Your task to perform on an android device: turn on priority inbox in the gmail app Image 0: 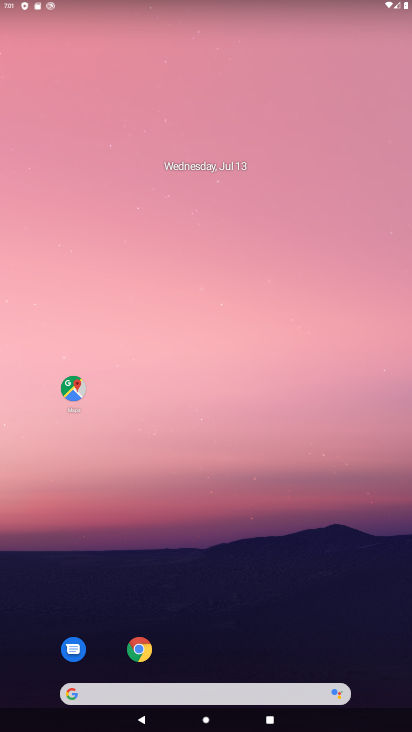
Step 0: drag from (189, 692) to (217, 189)
Your task to perform on an android device: turn on priority inbox in the gmail app Image 1: 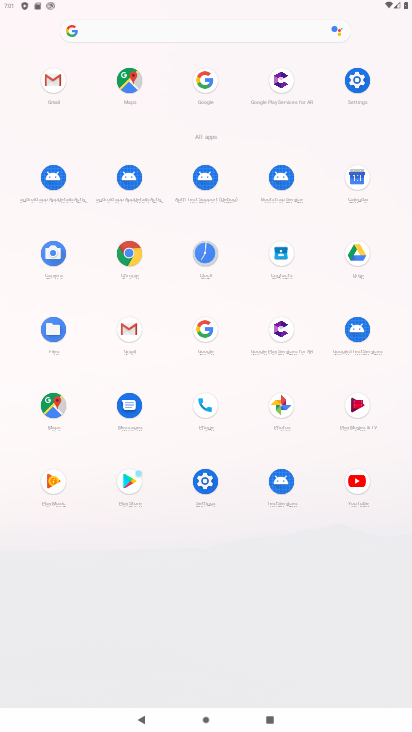
Step 1: click (53, 80)
Your task to perform on an android device: turn on priority inbox in the gmail app Image 2: 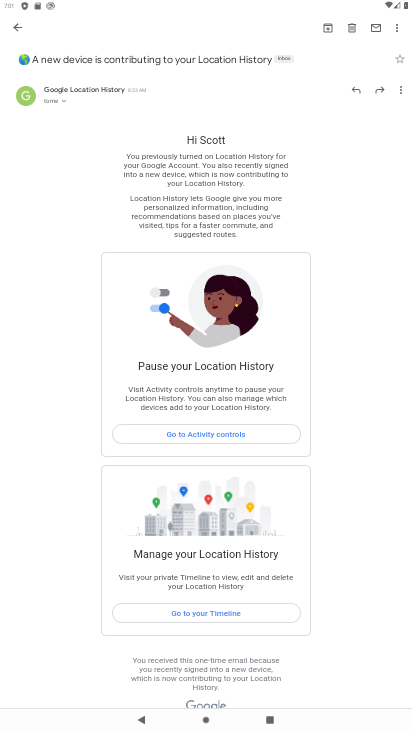
Step 2: press back button
Your task to perform on an android device: turn on priority inbox in the gmail app Image 3: 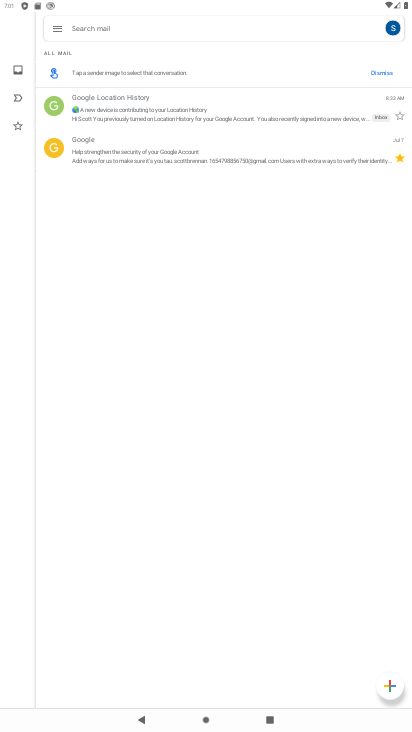
Step 3: click (57, 29)
Your task to perform on an android device: turn on priority inbox in the gmail app Image 4: 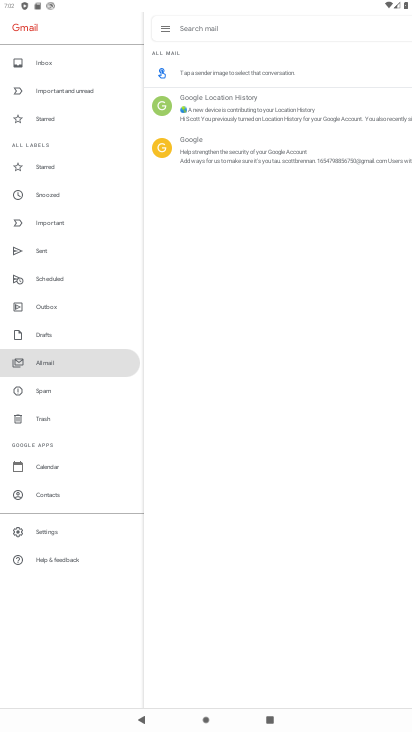
Step 4: click (54, 533)
Your task to perform on an android device: turn on priority inbox in the gmail app Image 5: 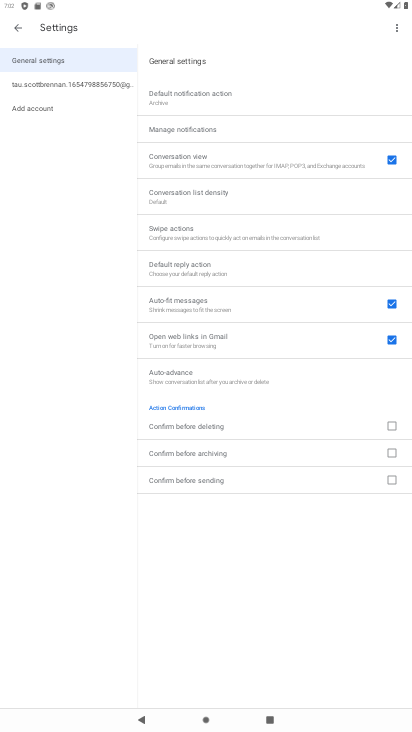
Step 5: click (84, 84)
Your task to perform on an android device: turn on priority inbox in the gmail app Image 6: 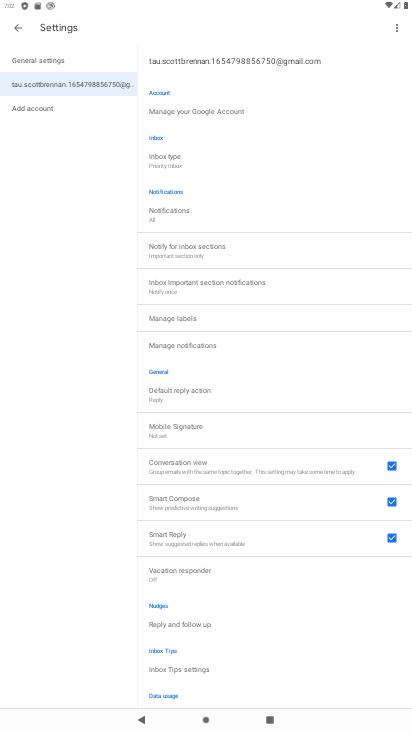
Step 6: click (157, 159)
Your task to perform on an android device: turn on priority inbox in the gmail app Image 7: 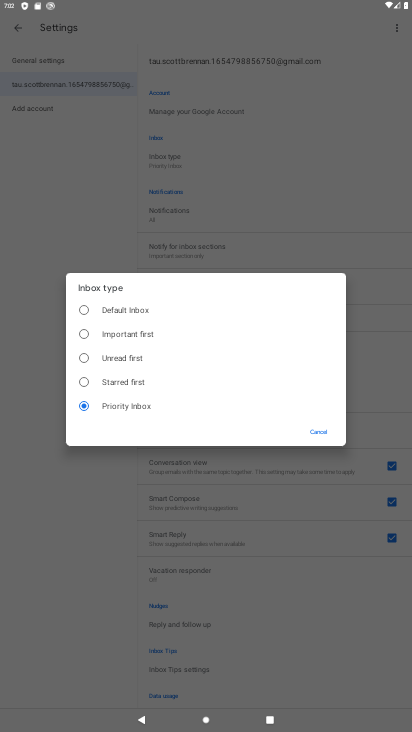
Step 7: click (79, 401)
Your task to perform on an android device: turn on priority inbox in the gmail app Image 8: 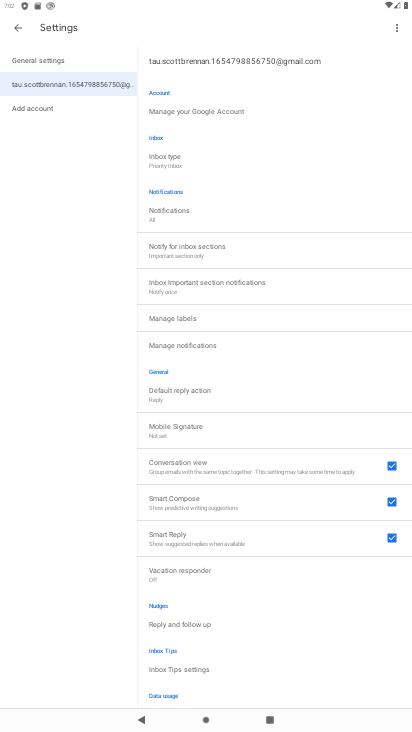
Step 8: task complete